Your task to perform on an android device: Search for Mexican restaurants on Maps Image 0: 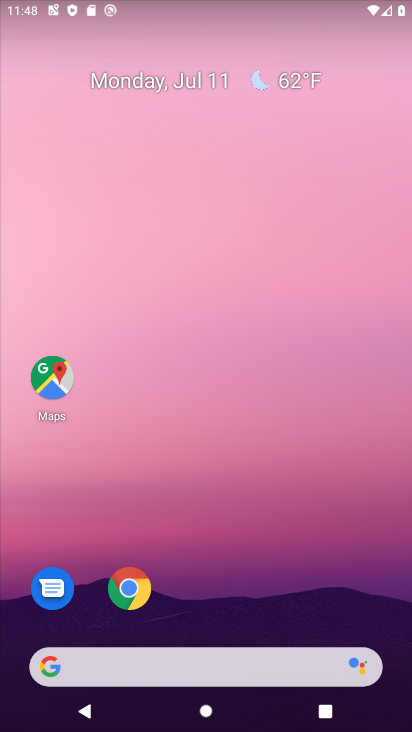
Step 0: drag from (253, 463) to (205, 152)
Your task to perform on an android device: Search for Mexican restaurants on Maps Image 1: 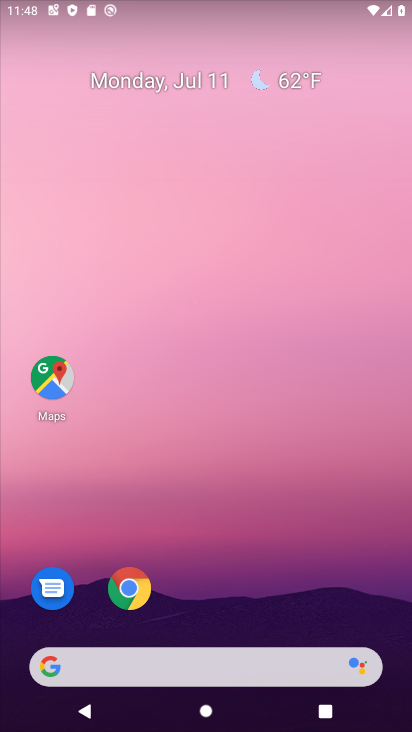
Step 1: drag from (202, 603) to (234, 133)
Your task to perform on an android device: Search for Mexican restaurants on Maps Image 2: 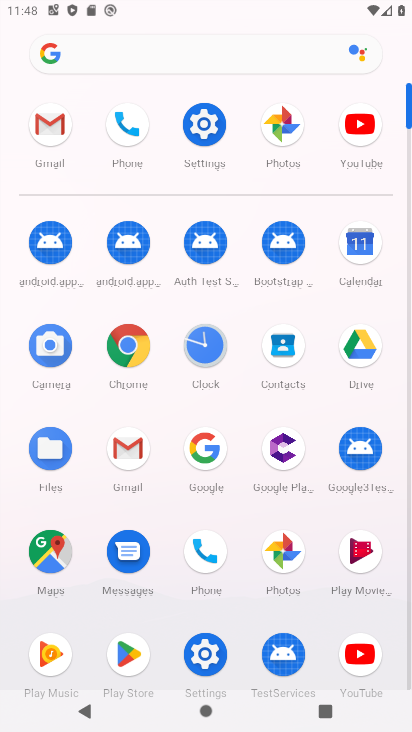
Step 2: click (54, 549)
Your task to perform on an android device: Search for Mexican restaurants on Maps Image 3: 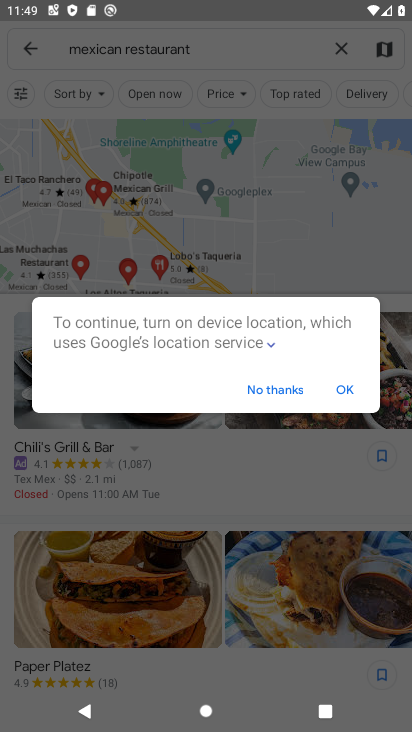
Step 3: click (287, 387)
Your task to perform on an android device: Search for Mexican restaurants on Maps Image 4: 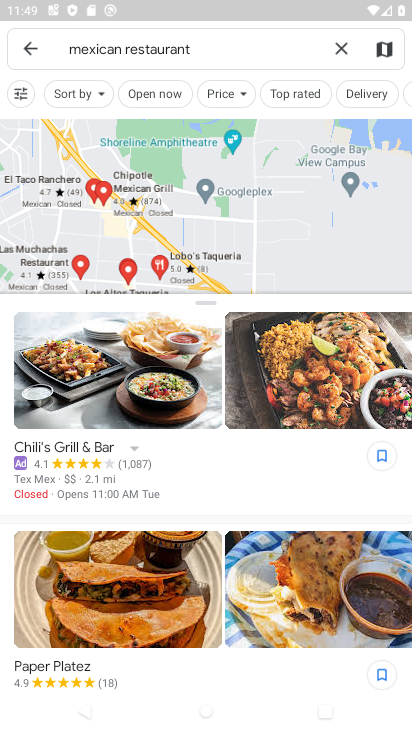
Step 4: task complete